Your task to perform on an android device: check storage Image 0: 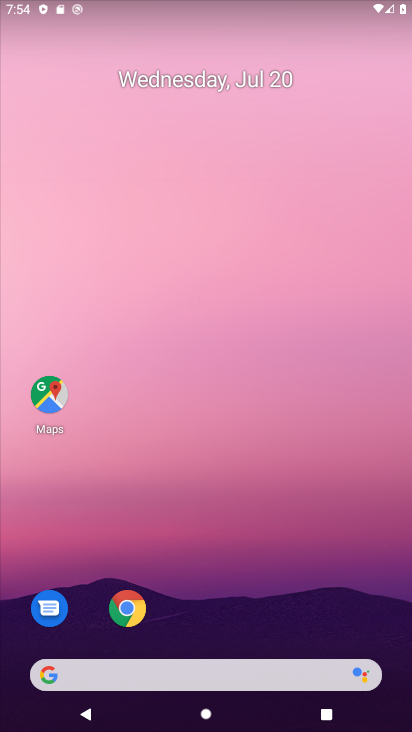
Step 0: drag from (187, 648) to (309, 1)
Your task to perform on an android device: check storage Image 1: 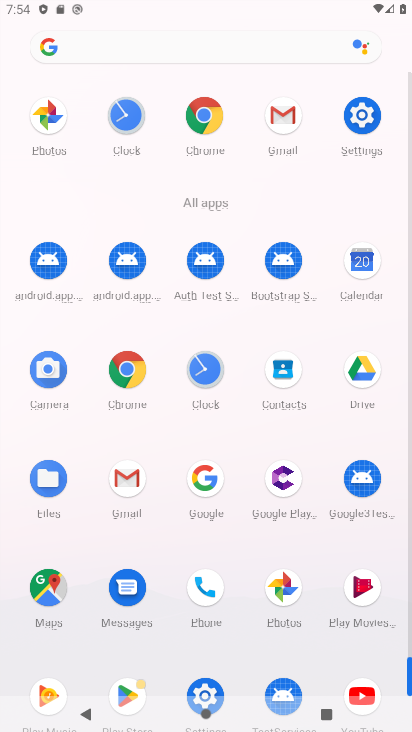
Step 1: click (368, 125)
Your task to perform on an android device: check storage Image 2: 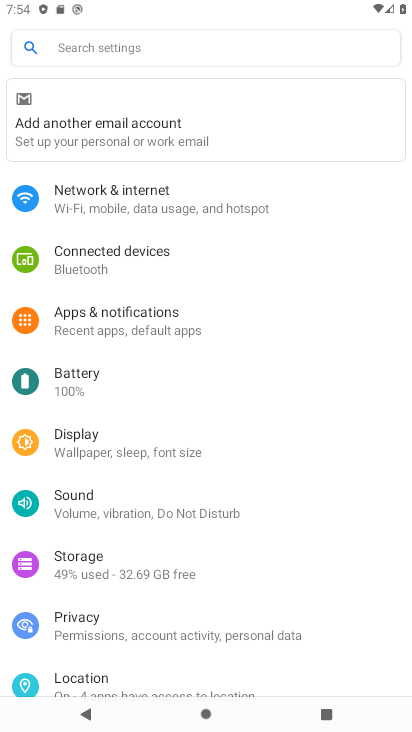
Step 2: click (111, 573)
Your task to perform on an android device: check storage Image 3: 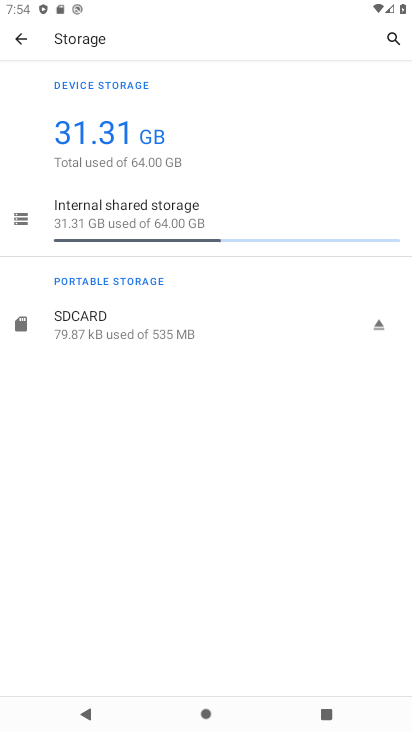
Step 3: click (175, 200)
Your task to perform on an android device: check storage Image 4: 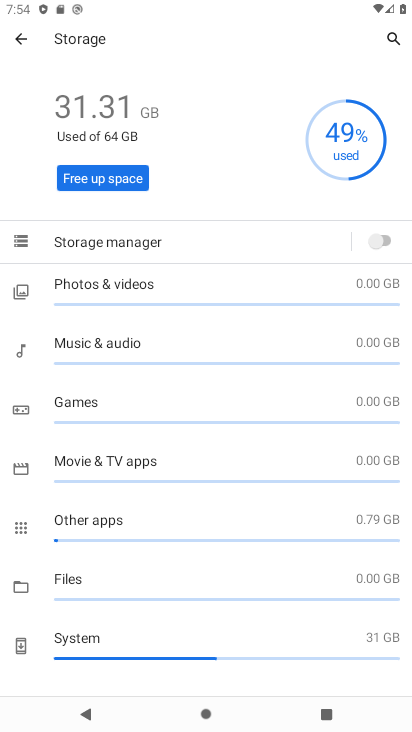
Step 4: task complete